Your task to perform on an android device: check battery use Image 0: 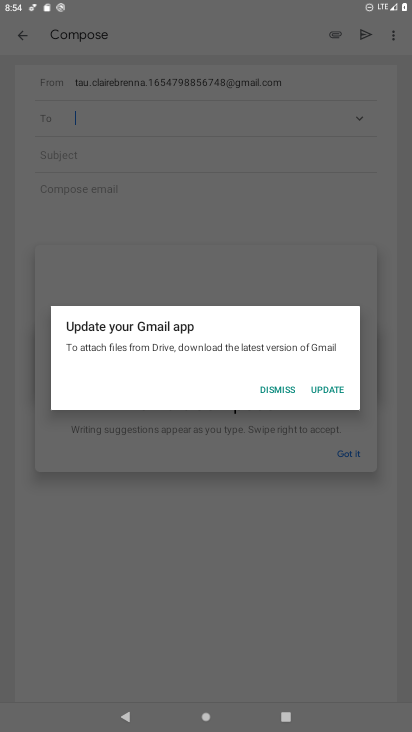
Step 0: press home button
Your task to perform on an android device: check battery use Image 1: 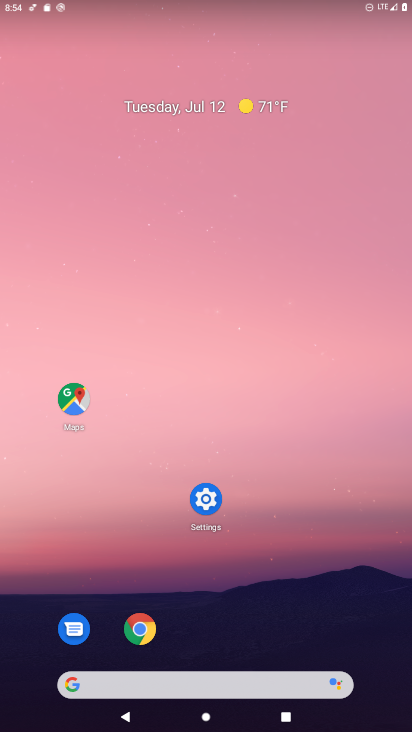
Step 1: click (199, 500)
Your task to perform on an android device: check battery use Image 2: 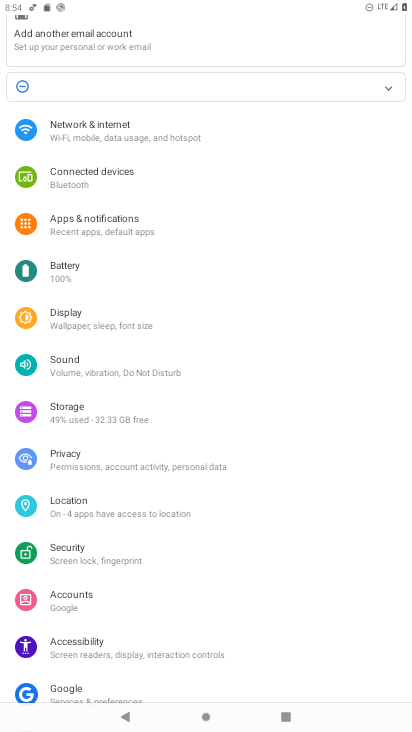
Step 2: click (64, 276)
Your task to perform on an android device: check battery use Image 3: 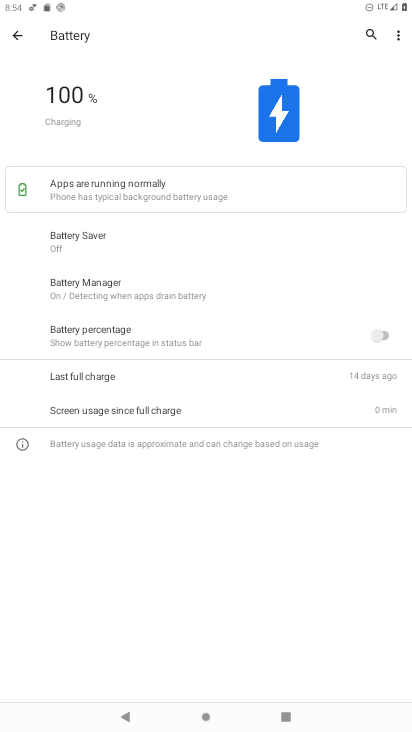
Step 3: click (394, 29)
Your task to perform on an android device: check battery use Image 4: 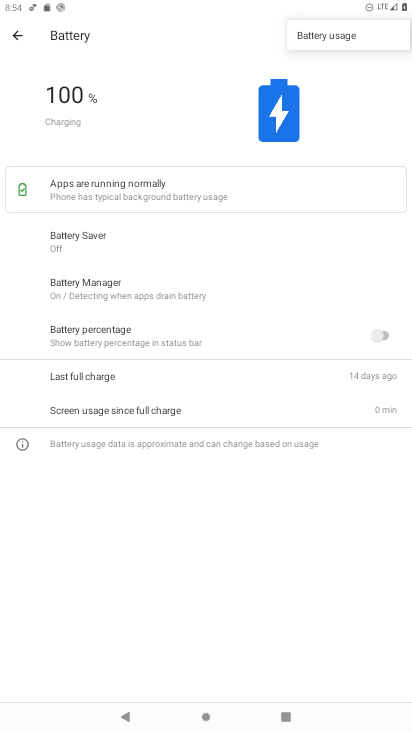
Step 4: click (336, 31)
Your task to perform on an android device: check battery use Image 5: 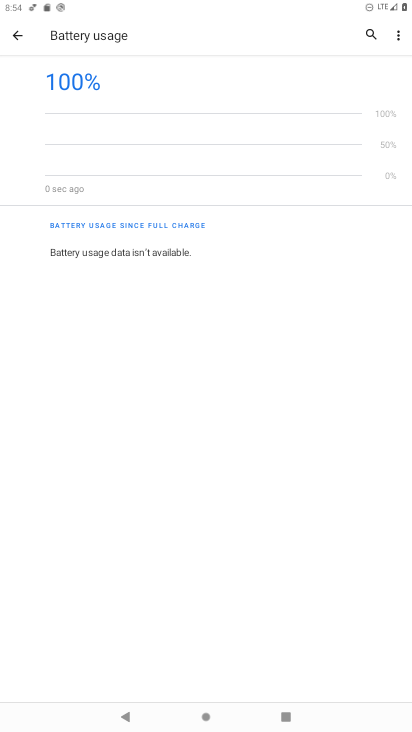
Step 5: task complete